Your task to perform on an android device: check out phone information Image 0: 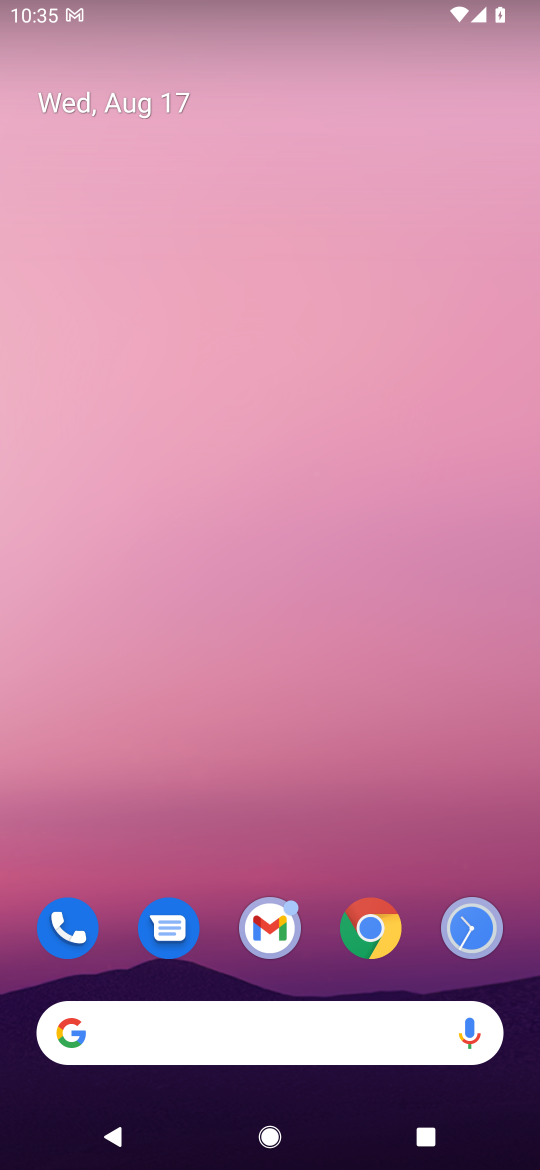
Step 0: drag from (362, 853) to (324, 307)
Your task to perform on an android device: check out phone information Image 1: 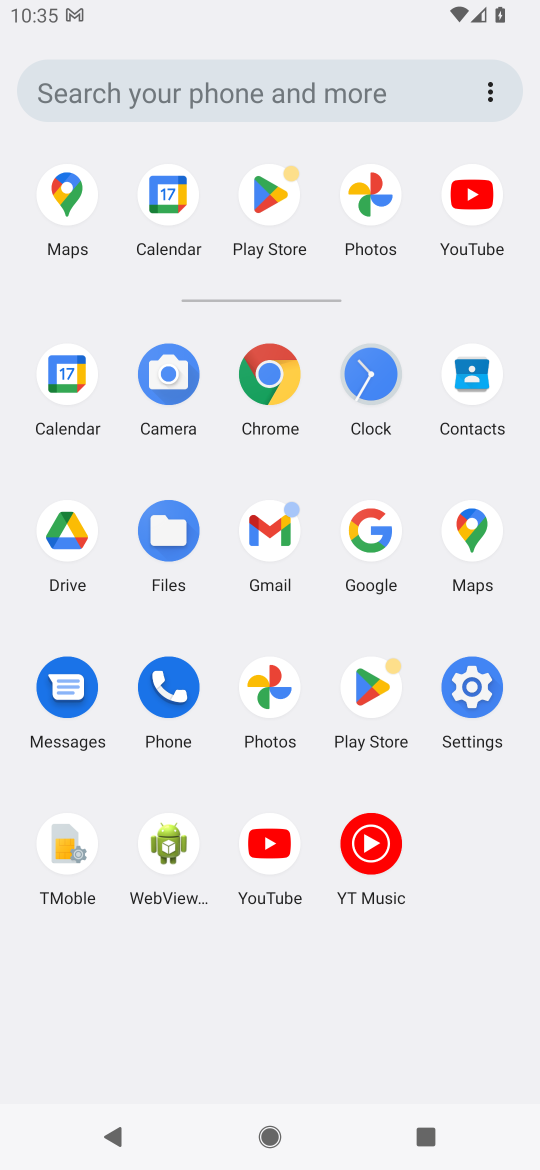
Step 1: click (491, 697)
Your task to perform on an android device: check out phone information Image 2: 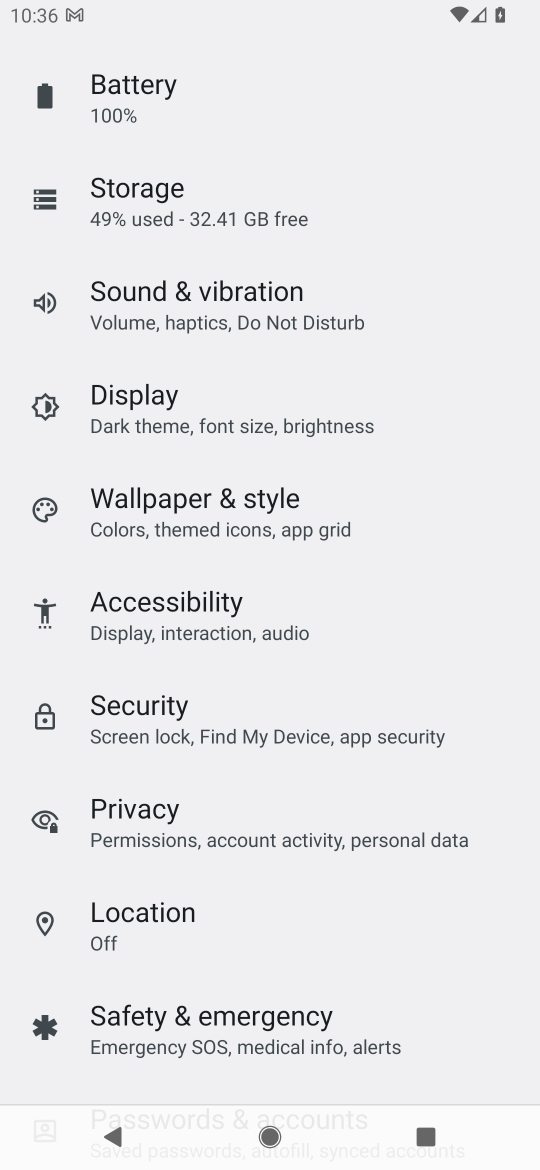
Step 2: drag from (353, 919) to (336, 237)
Your task to perform on an android device: check out phone information Image 3: 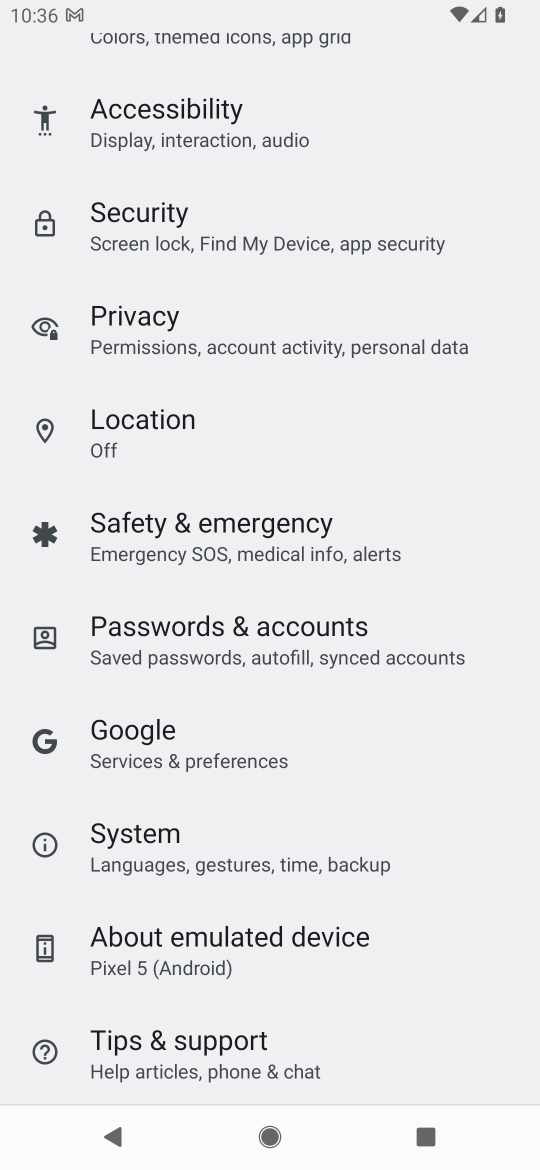
Step 3: drag from (432, 1005) to (413, 353)
Your task to perform on an android device: check out phone information Image 4: 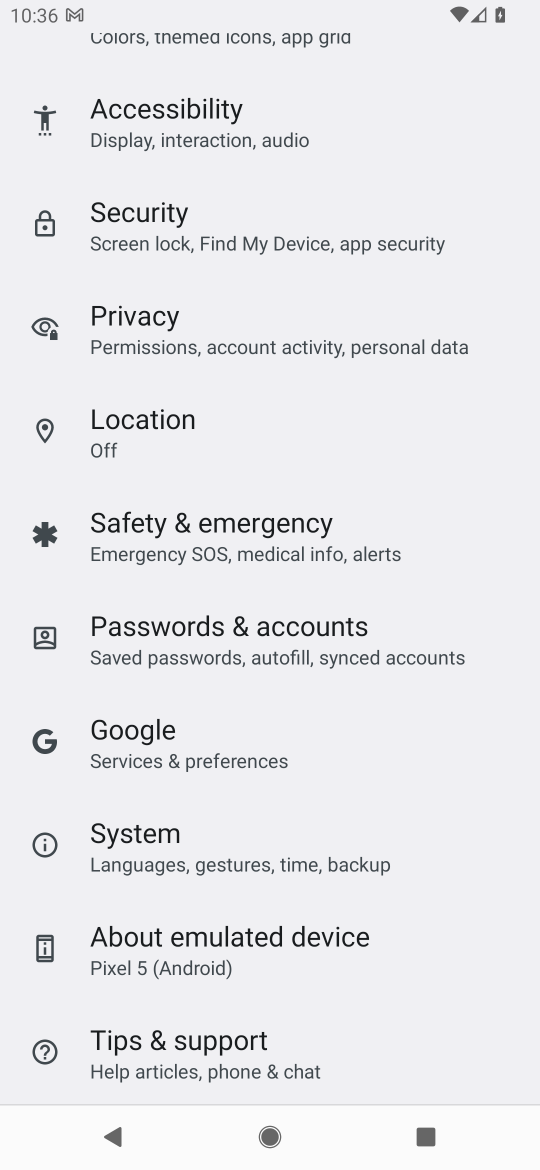
Step 4: drag from (380, 1012) to (379, 538)
Your task to perform on an android device: check out phone information Image 5: 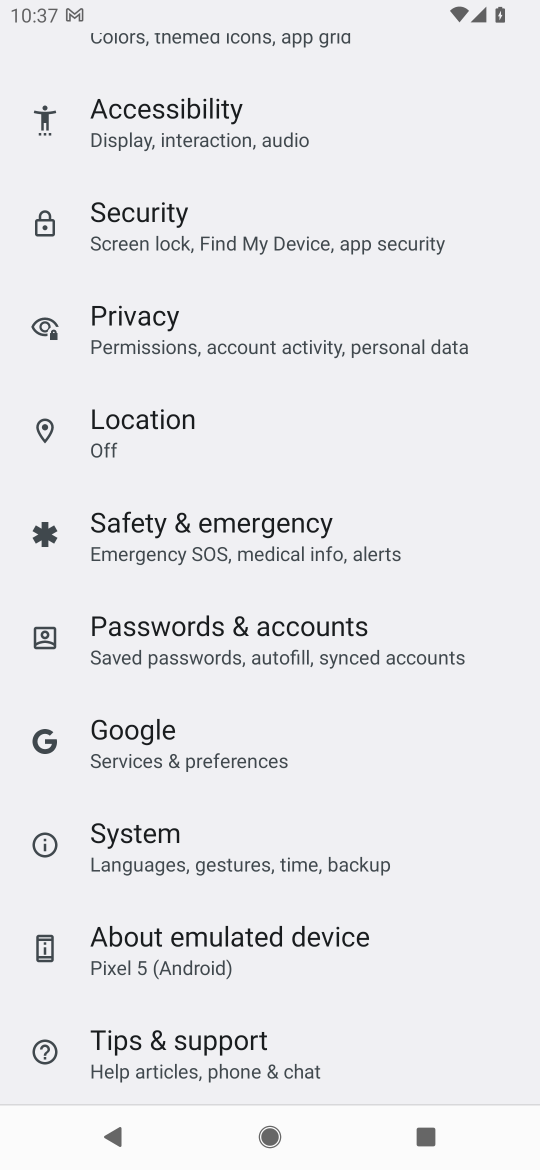
Step 5: drag from (341, 1000) to (326, 469)
Your task to perform on an android device: check out phone information Image 6: 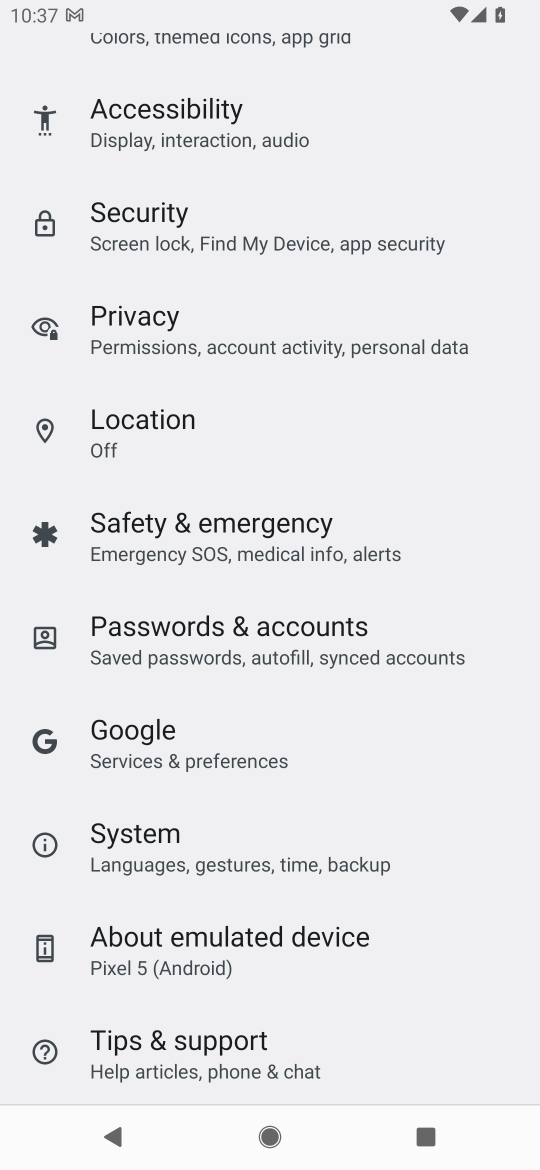
Step 6: click (191, 948)
Your task to perform on an android device: check out phone information Image 7: 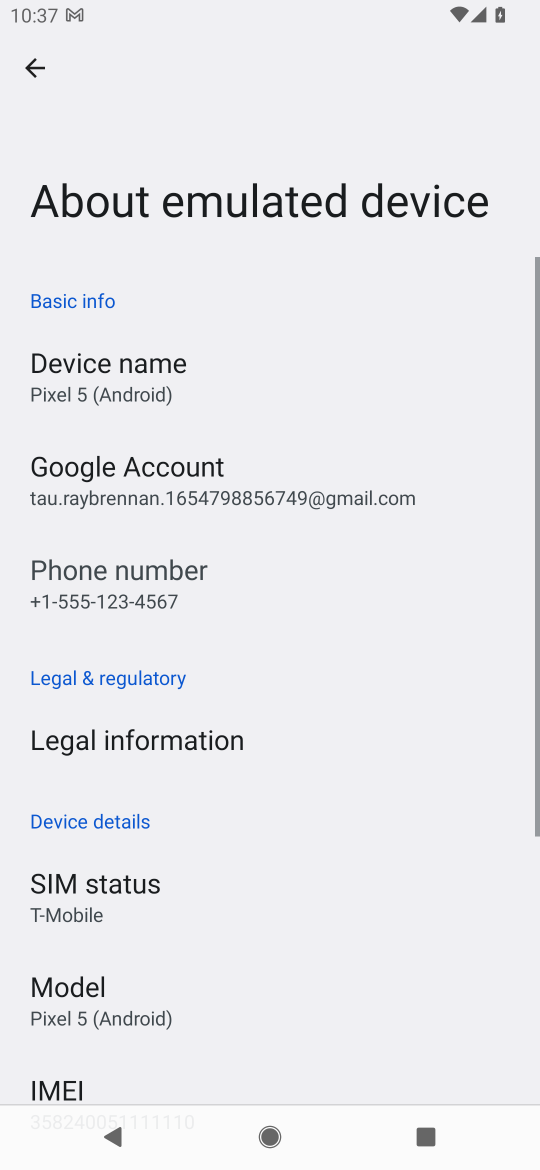
Step 7: task complete